Your task to perform on an android device: change the clock style Image 0: 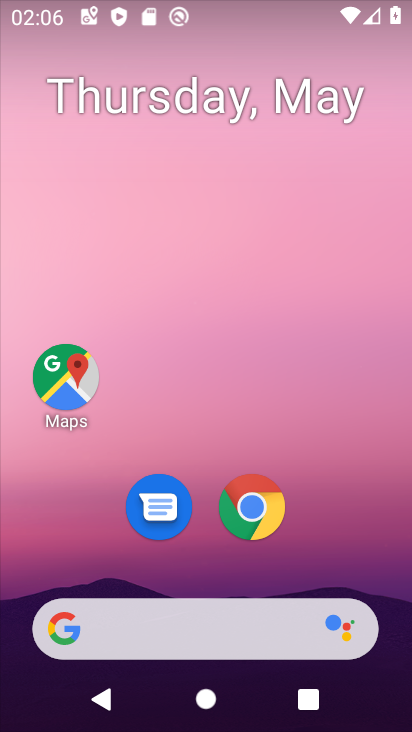
Step 0: drag from (184, 545) to (235, 21)
Your task to perform on an android device: change the clock style Image 1: 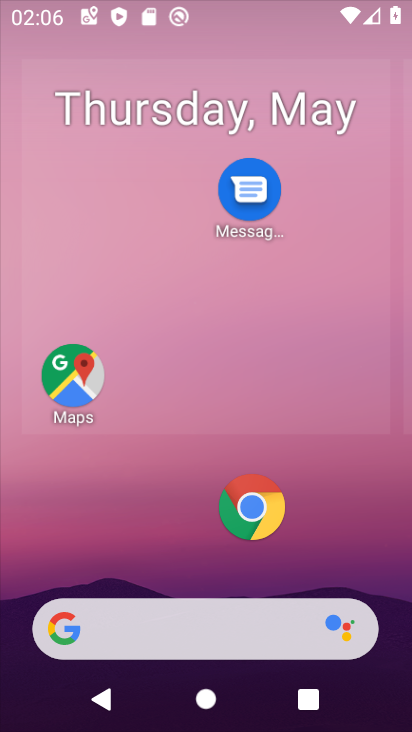
Step 1: drag from (294, 471) to (307, 23)
Your task to perform on an android device: change the clock style Image 2: 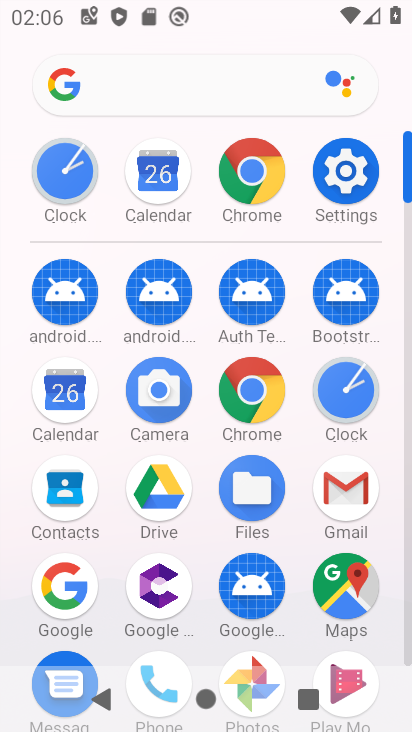
Step 2: click (343, 392)
Your task to perform on an android device: change the clock style Image 3: 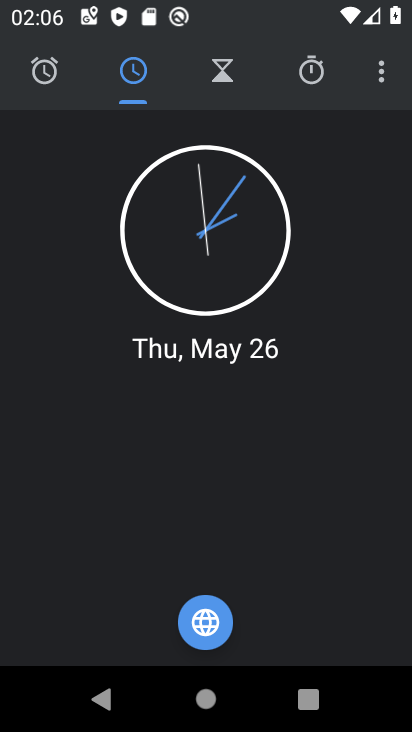
Step 3: click (398, 65)
Your task to perform on an android device: change the clock style Image 4: 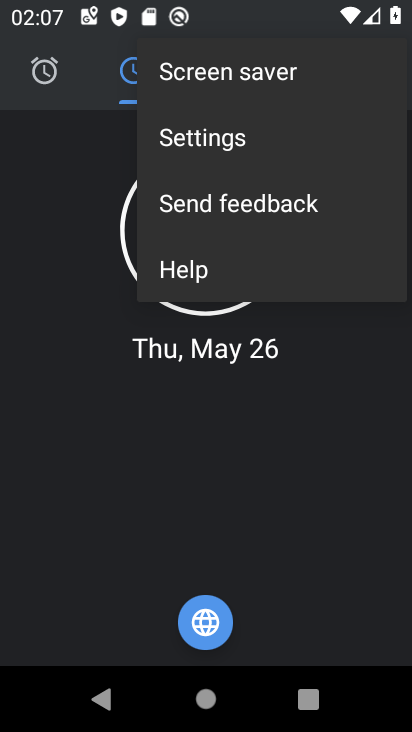
Step 4: click (279, 134)
Your task to perform on an android device: change the clock style Image 5: 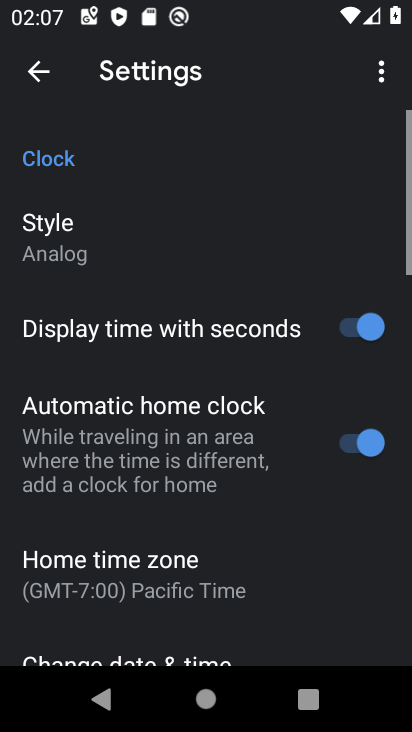
Step 5: click (120, 243)
Your task to perform on an android device: change the clock style Image 6: 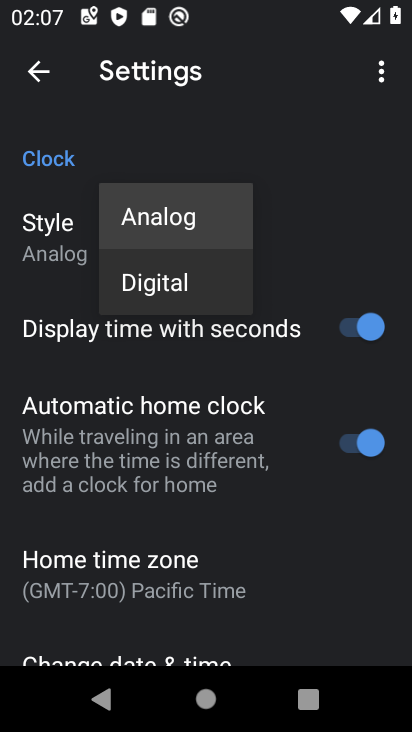
Step 6: click (176, 282)
Your task to perform on an android device: change the clock style Image 7: 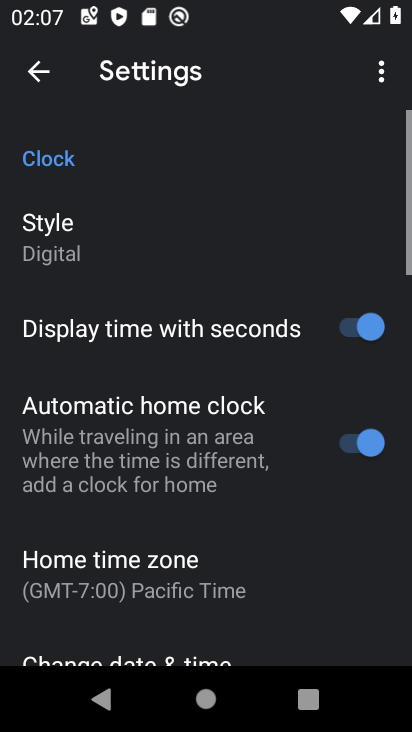
Step 7: task complete